Your task to perform on an android device: toggle notifications settings in the gmail app Image 0: 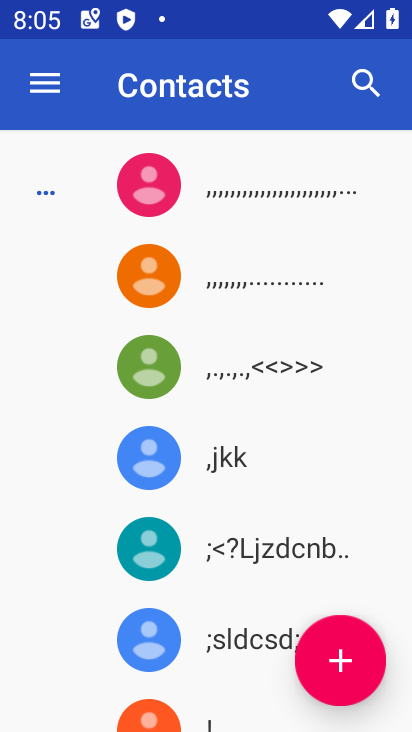
Step 0: press home button
Your task to perform on an android device: toggle notifications settings in the gmail app Image 1: 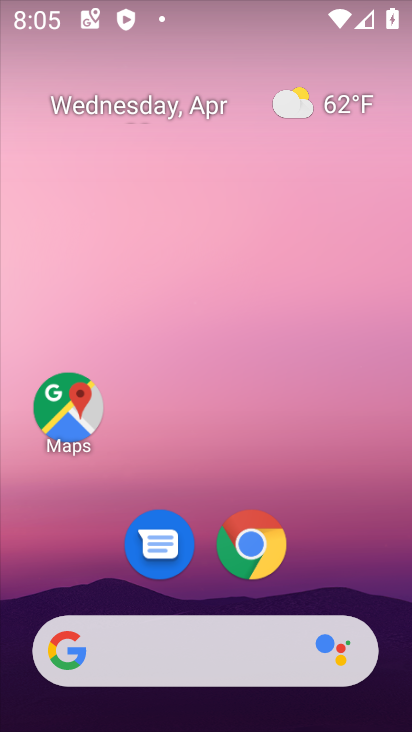
Step 1: drag from (331, 501) to (283, 101)
Your task to perform on an android device: toggle notifications settings in the gmail app Image 2: 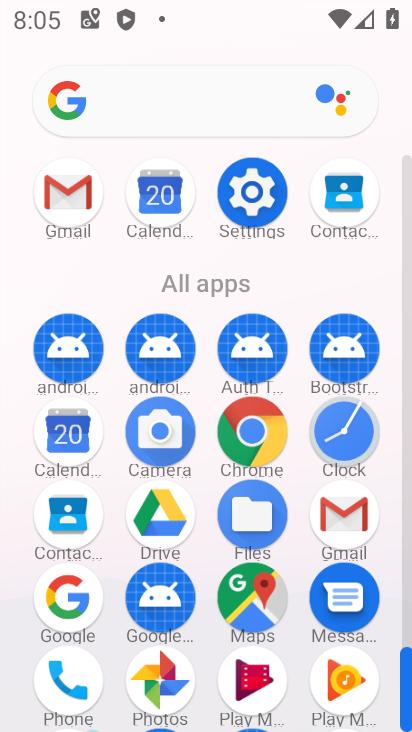
Step 2: click (76, 198)
Your task to perform on an android device: toggle notifications settings in the gmail app Image 3: 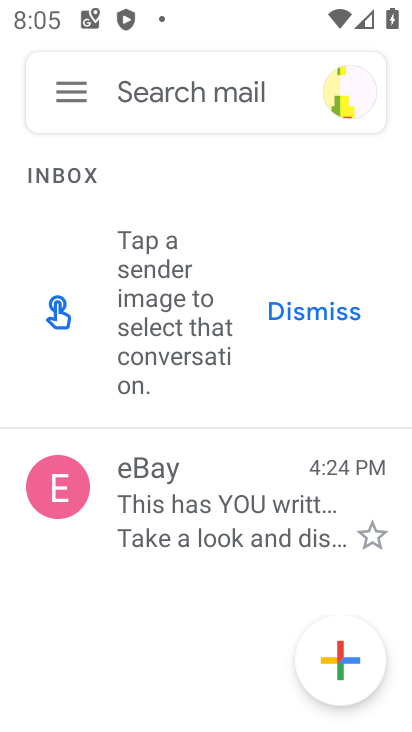
Step 3: click (80, 98)
Your task to perform on an android device: toggle notifications settings in the gmail app Image 4: 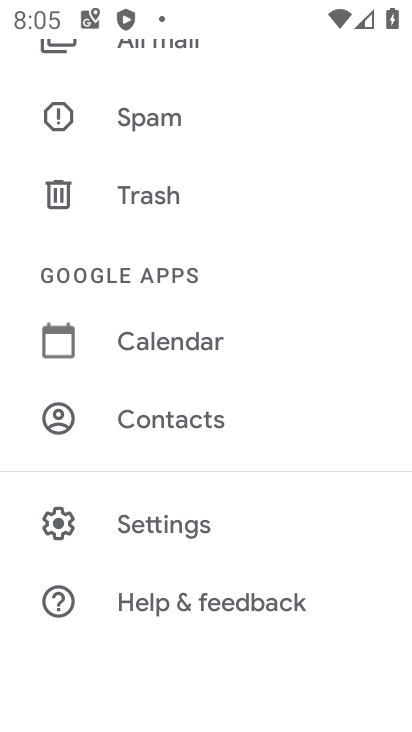
Step 4: click (160, 519)
Your task to perform on an android device: toggle notifications settings in the gmail app Image 5: 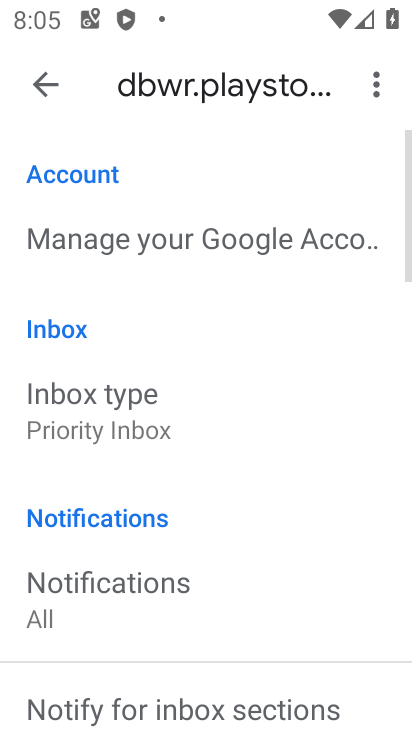
Step 5: drag from (163, 637) to (167, 380)
Your task to perform on an android device: toggle notifications settings in the gmail app Image 6: 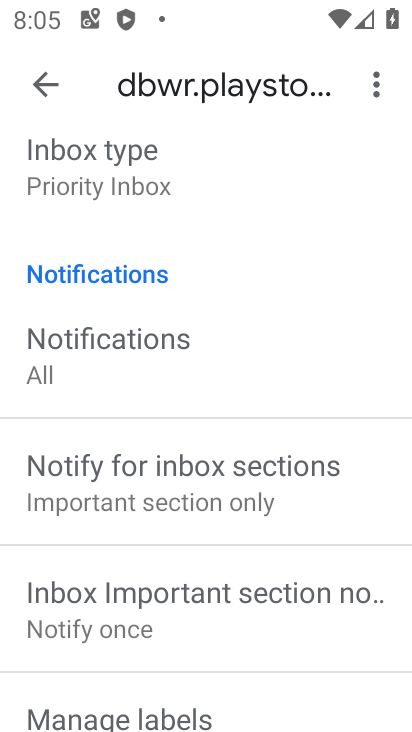
Step 6: drag from (133, 670) to (141, 431)
Your task to perform on an android device: toggle notifications settings in the gmail app Image 7: 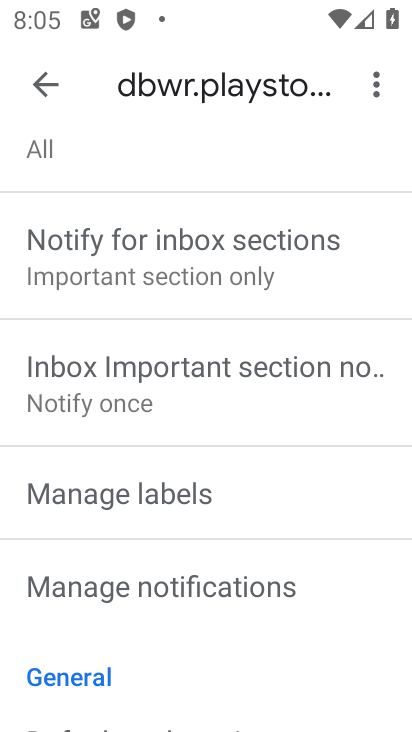
Step 7: click (108, 581)
Your task to perform on an android device: toggle notifications settings in the gmail app Image 8: 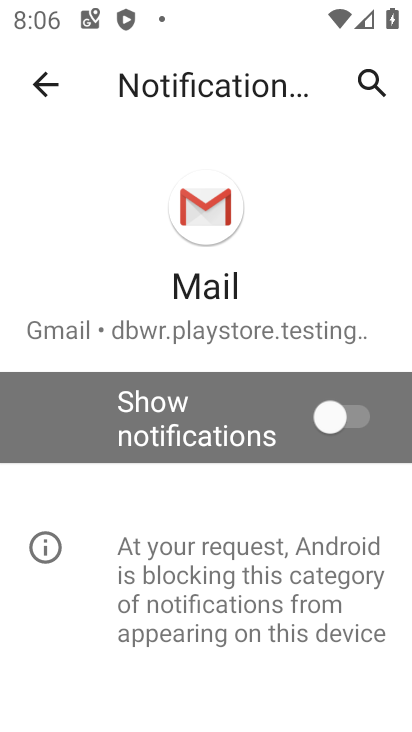
Step 8: click (354, 422)
Your task to perform on an android device: toggle notifications settings in the gmail app Image 9: 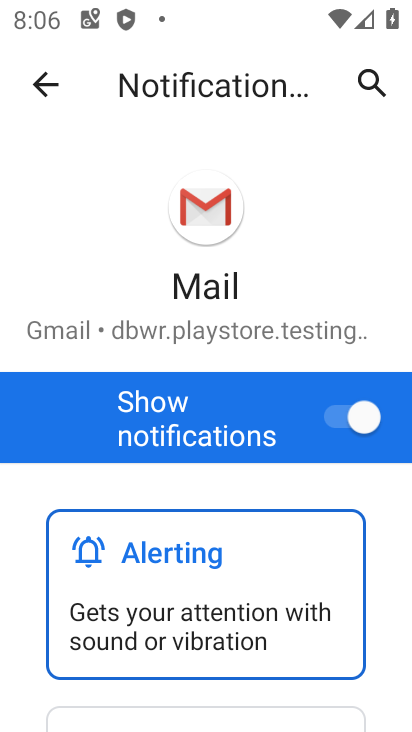
Step 9: task complete